Your task to perform on an android device: toggle improve location accuracy Image 0: 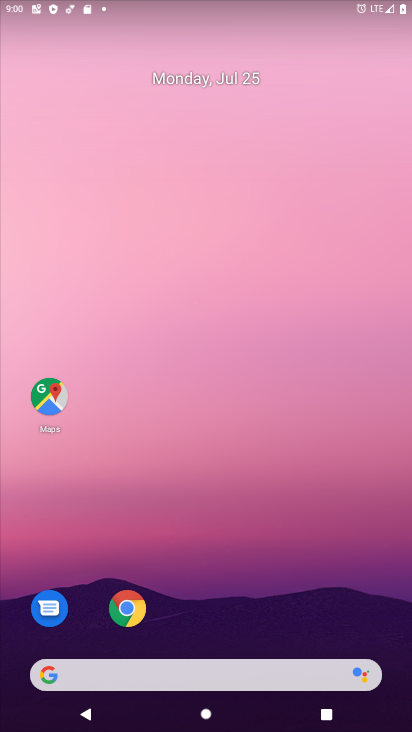
Step 0: drag from (225, 716) to (226, 51)
Your task to perform on an android device: toggle improve location accuracy Image 1: 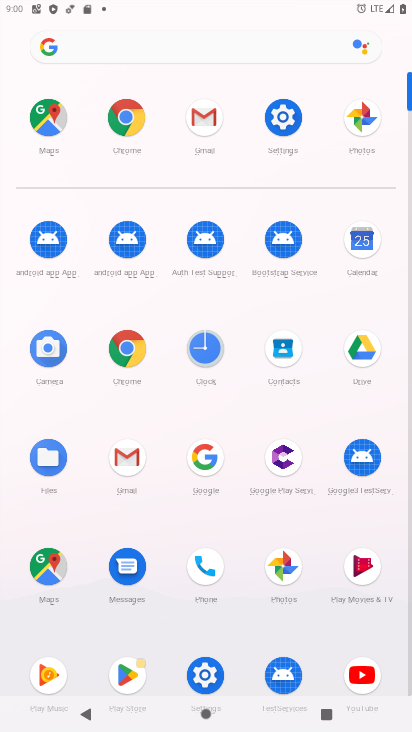
Step 1: click (279, 116)
Your task to perform on an android device: toggle improve location accuracy Image 2: 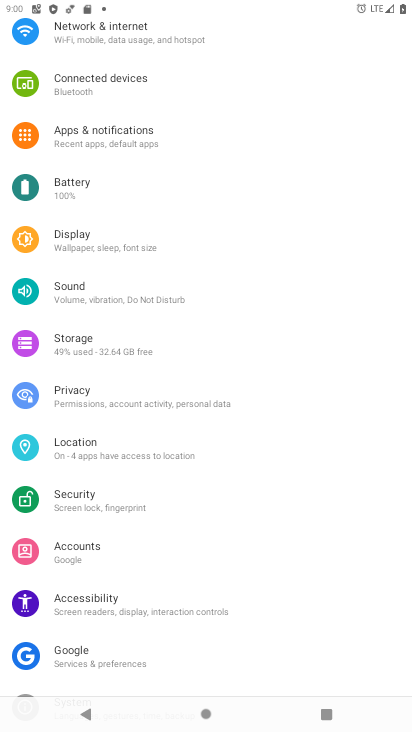
Step 2: click (75, 442)
Your task to perform on an android device: toggle improve location accuracy Image 3: 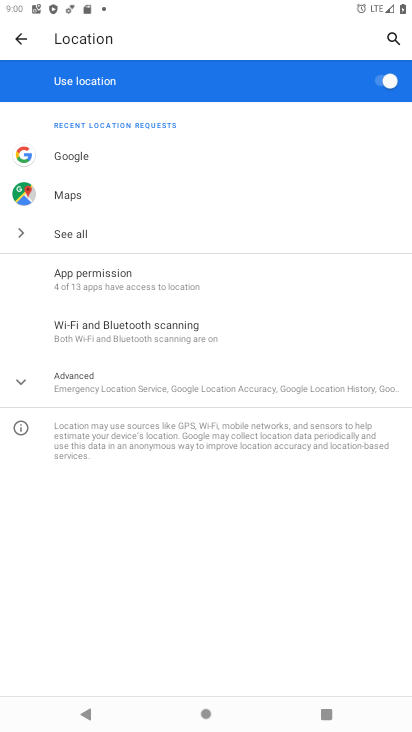
Step 3: click (81, 377)
Your task to perform on an android device: toggle improve location accuracy Image 4: 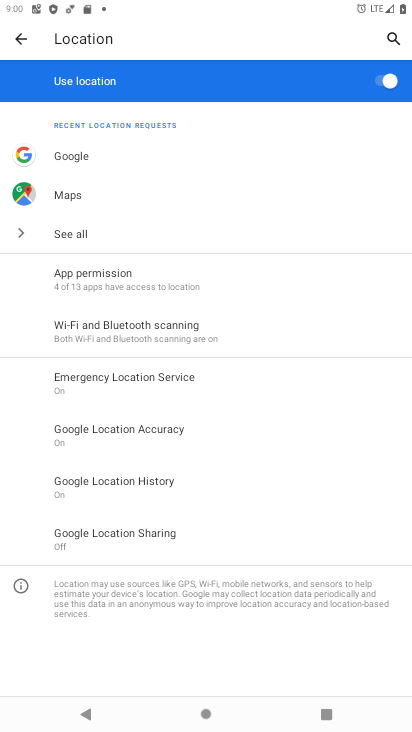
Step 4: click (89, 430)
Your task to perform on an android device: toggle improve location accuracy Image 5: 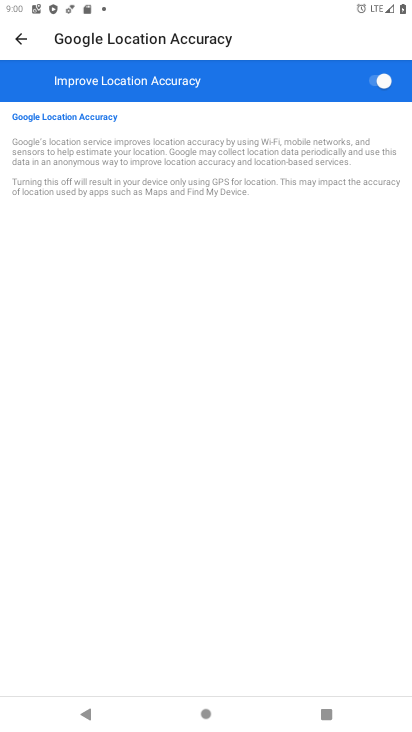
Step 5: click (374, 83)
Your task to perform on an android device: toggle improve location accuracy Image 6: 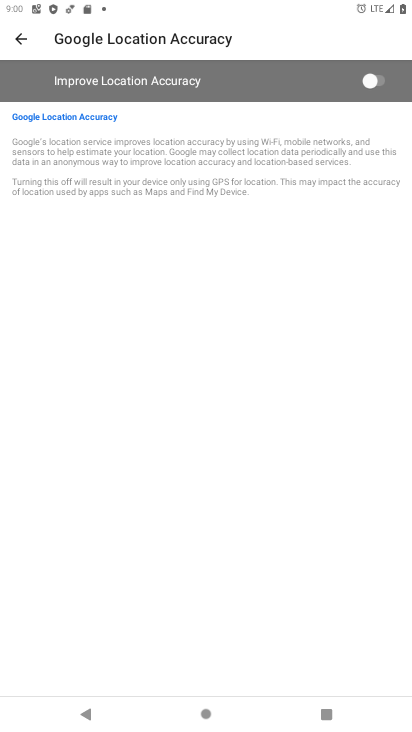
Step 6: task complete